Your task to perform on an android device: Go to privacy settings Image 0: 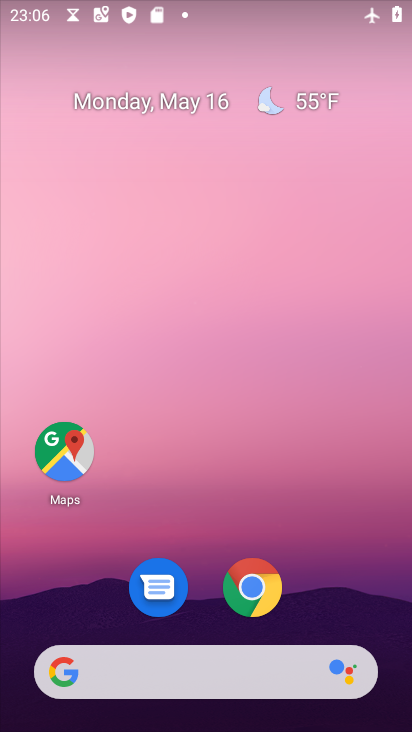
Step 0: drag from (340, 565) to (229, 11)
Your task to perform on an android device: Go to privacy settings Image 1: 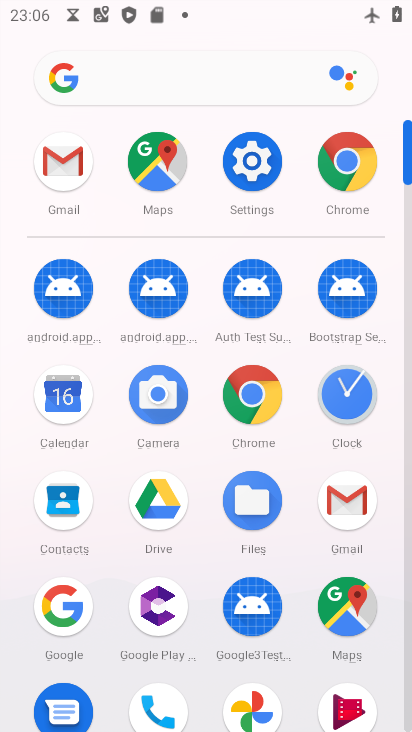
Step 1: drag from (17, 575) to (14, 236)
Your task to perform on an android device: Go to privacy settings Image 2: 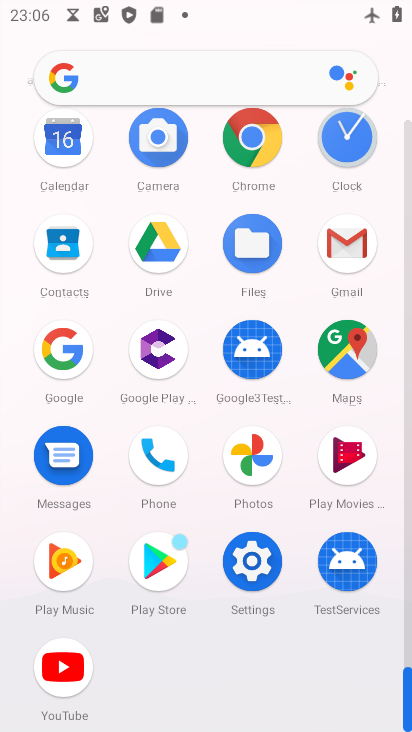
Step 2: drag from (11, 480) to (1, 171)
Your task to perform on an android device: Go to privacy settings Image 3: 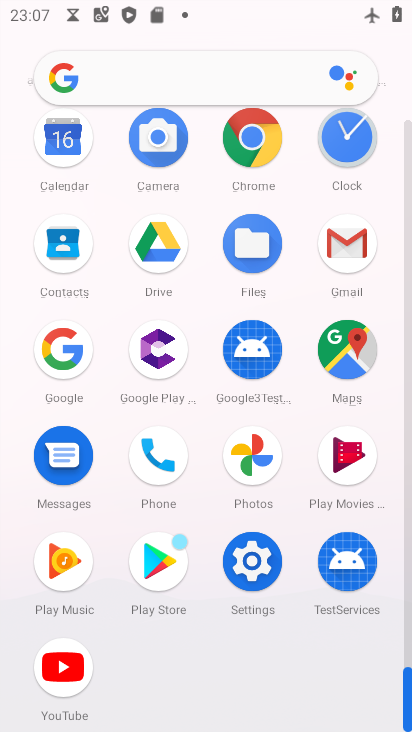
Step 3: click (245, 126)
Your task to perform on an android device: Go to privacy settings Image 4: 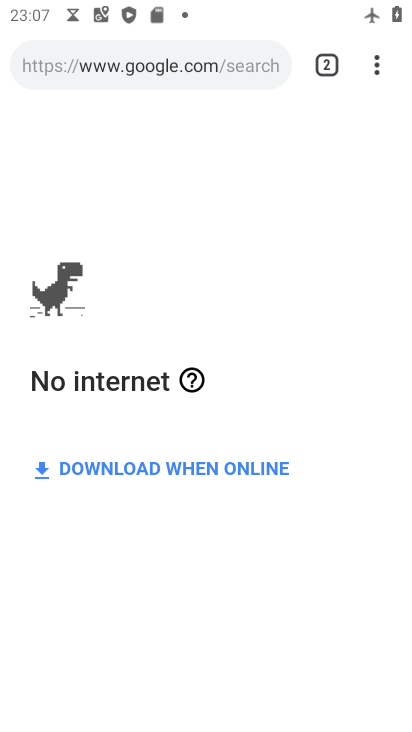
Step 4: drag from (378, 61) to (156, 632)
Your task to perform on an android device: Go to privacy settings Image 5: 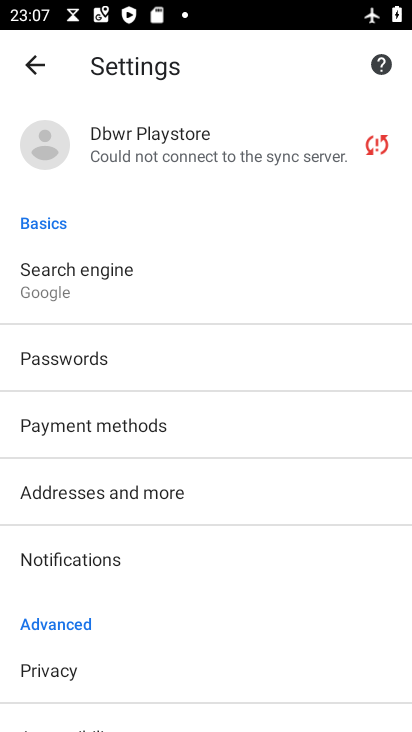
Step 5: click (98, 676)
Your task to perform on an android device: Go to privacy settings Image 6: 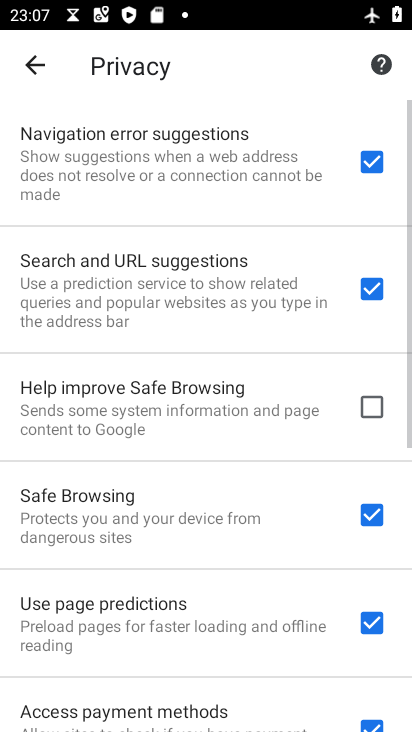
Step 6: task complete